Your task to perform on an android device: toggle notifications settings in the gmail app Image 0: 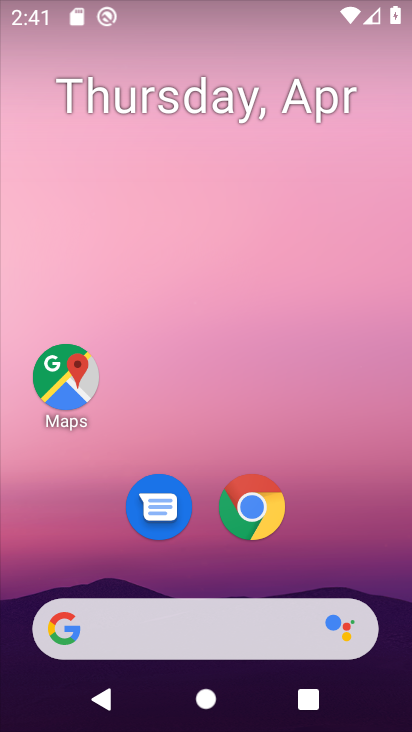
Step 0: drag from (145, 539) to (346, 41)
Your task to perform on an android device: toggle notifications settings in the gmail app Image 1: 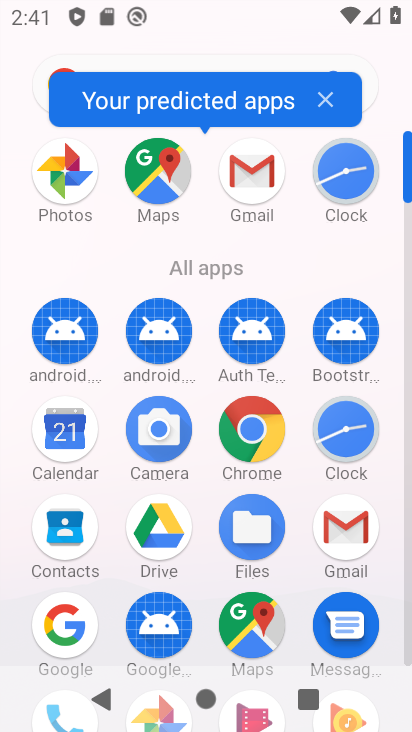
Step 1: drag from (215, 641) to (302, 241)
Your task to perform on an android device: toggle notifications settings in the gmail app Image 2: 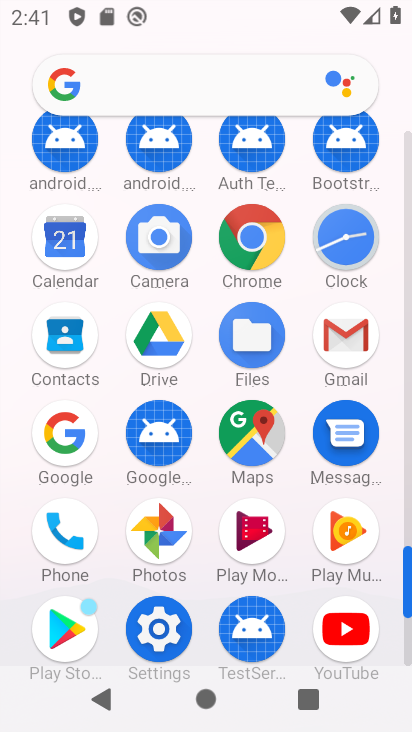
Step 2: click (342, 315)
Your task to perform on an android device: toggle notifications settings in the gmail app Image 3: 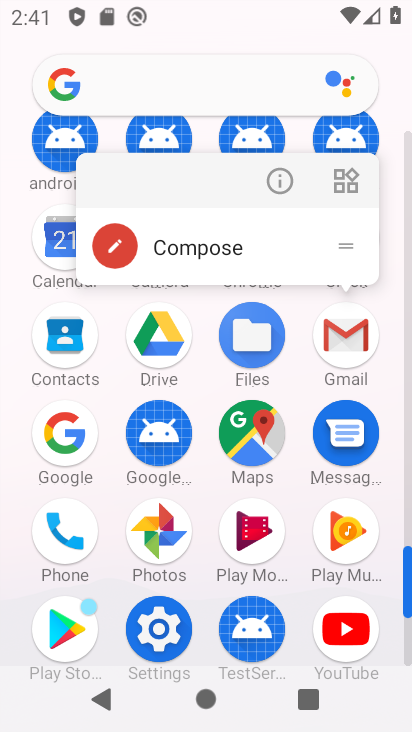
Step 3: click (339, 338)
Your task to perform on an android device: toggle notifications settings in the gmail app Image 4: 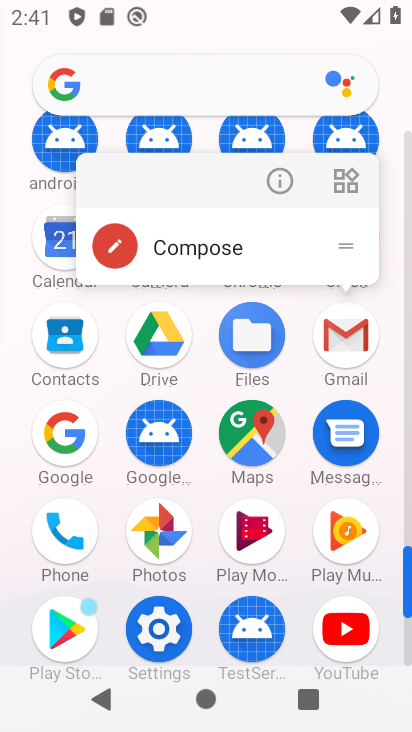
Step 4: click (343, 340)
Your task to perform on an android device: toggle notifications settings in the gmail app Image 5: 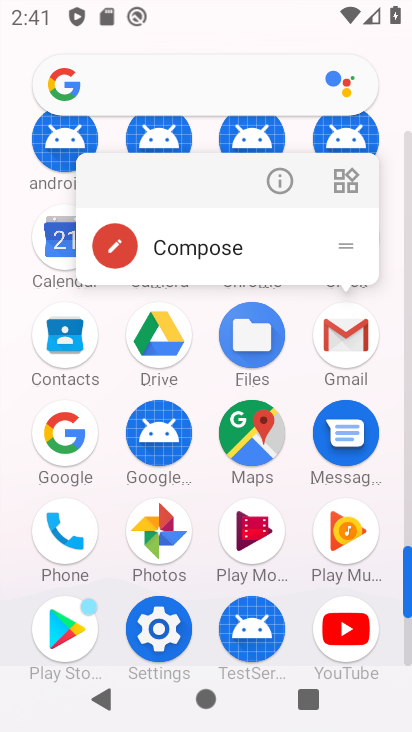
Step 5: click (348, 365)
Your task to perform on an android device: toggle notifications settings in the gmail app Image 6: 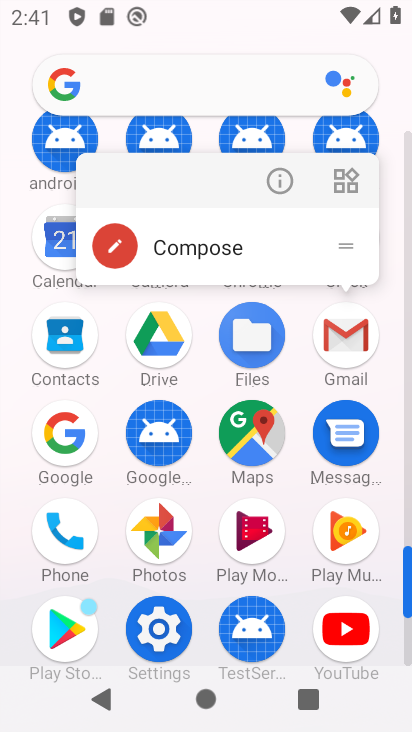
Step 6: click (348, 360)
Your task to perform on an android device: toggle notifications settings in the gmail app Image 7: 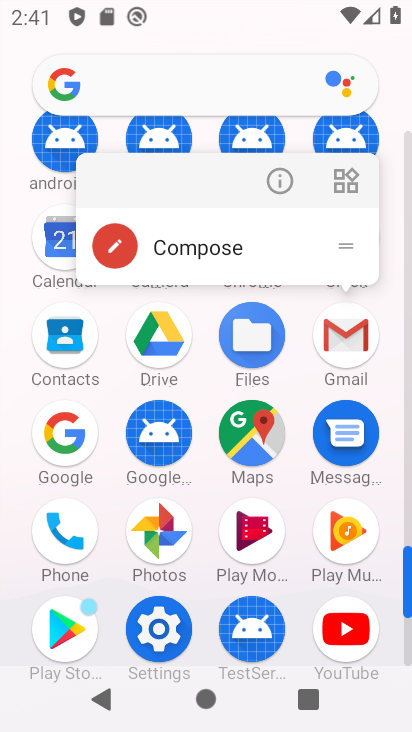
Step 7: click (340, 360)
Your task to perform on an android device: toggle notifications settings in the gmail app Image 8: 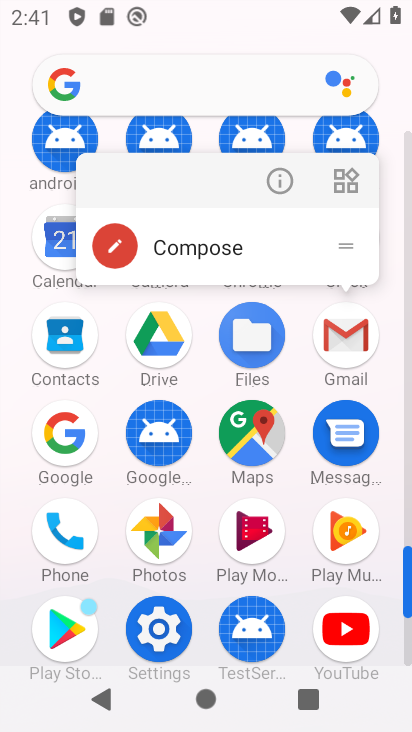
Step 8: click (362, 352)
Your task to perform on an android device: toggle notifications settings in the gmail app Image 9: 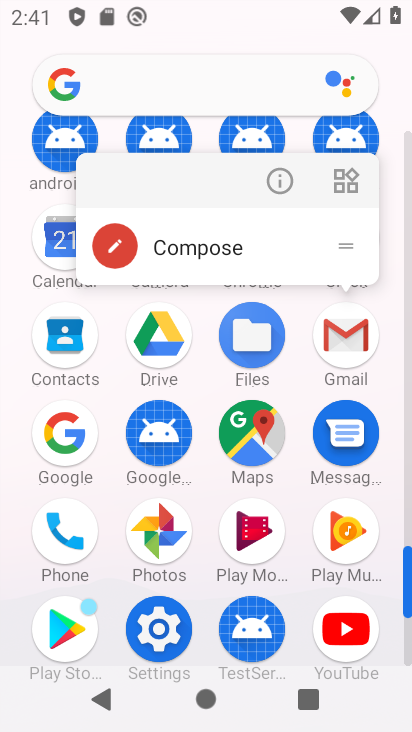
Step 9: click (336, 349)
Your task to perform on an android device: toggle notifications settings in the gmail app Image 10: 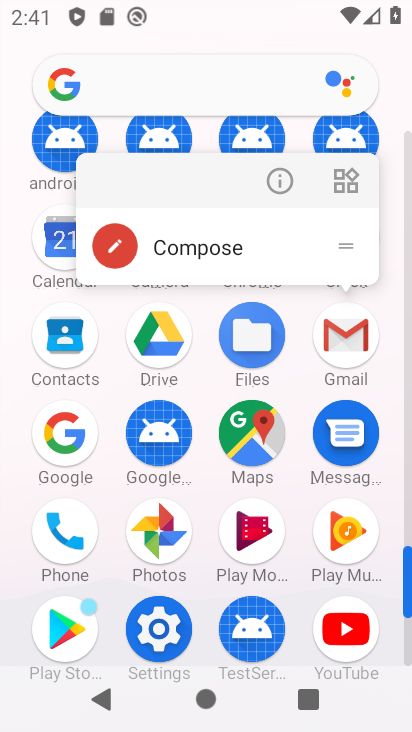
Step 10: click (341, 344)
Your task to perform on an android device: toggle notifications settings in the gmail app Image 11: 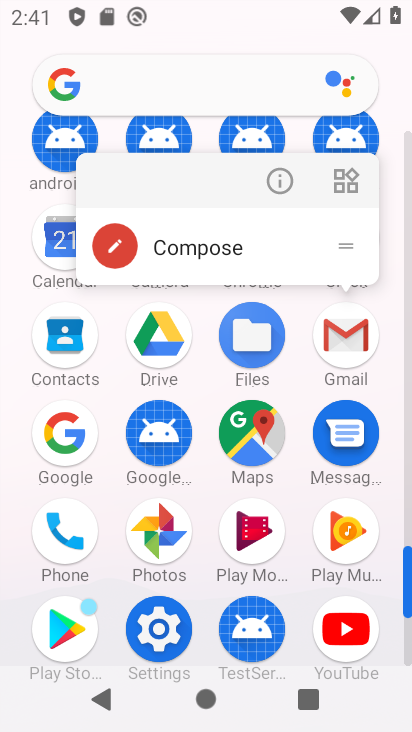
Step 11: click (344, 336)
Your task to perform on an android device: toggle notifications settings in the gmail app Image 12: 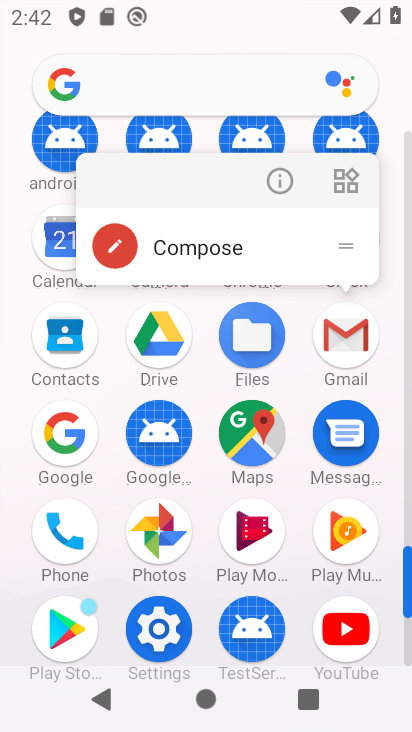
Step 12: click (346, 336)
Your task to perform on an android device: toggle notifications settings in the gmail app Image 13: 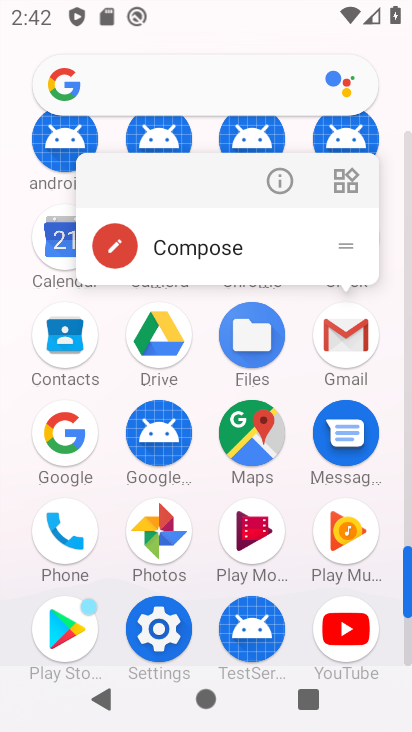
Step 13: click (357, 348)
Your task to perform on an android device: toggle notifications settings in the gmail app Image 14: 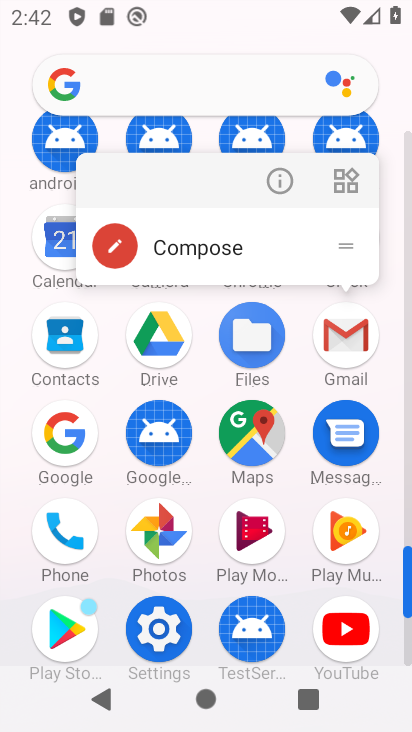
Step 14: click (357, 348)
Your task to perform on an android device: toggle notifications settings in the gmail app Image 15: 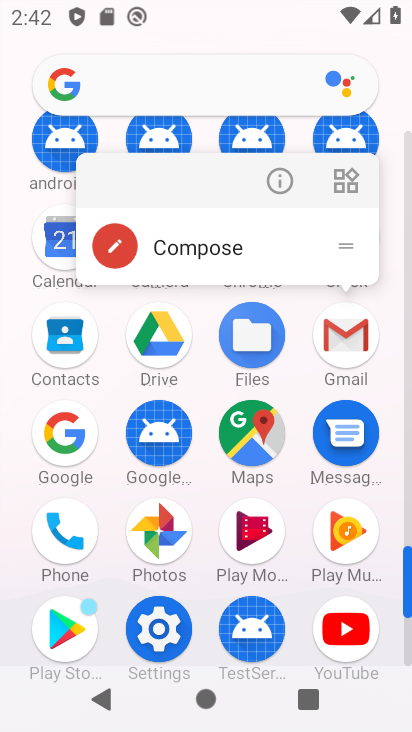
Step 15: click (357, 348)
Your task to perform on an android device: toggle notifications settings in the gmail app Image 16: 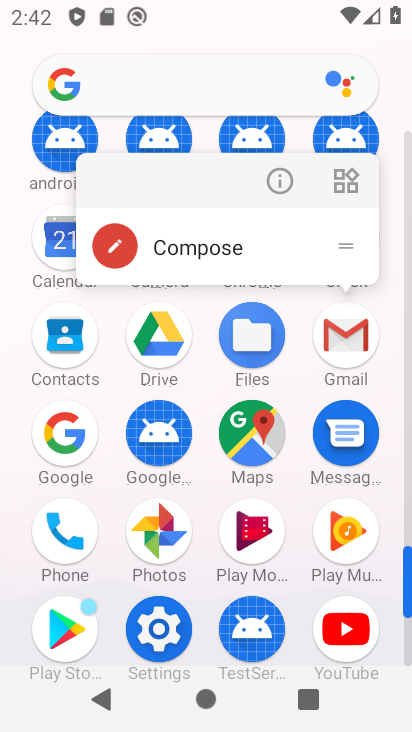
Step 16: click (353, 351)
Your task to perform on an android device: toggle notifications settings in the gmail app Image 17: 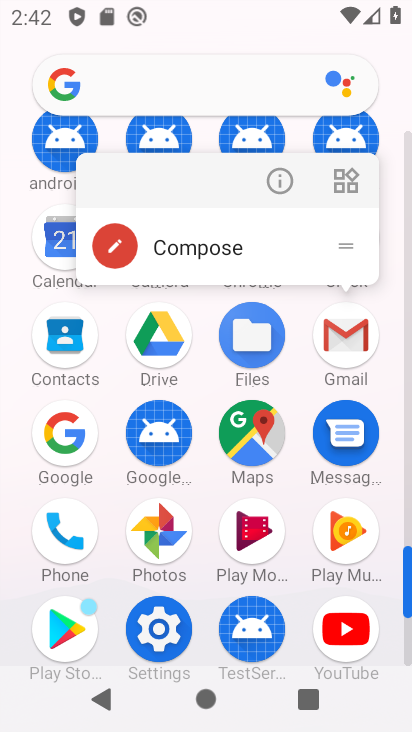
Step 17: click (352, 351)
Your task to perform on an android device: toggle notifications settings in the gmail app Image 18: 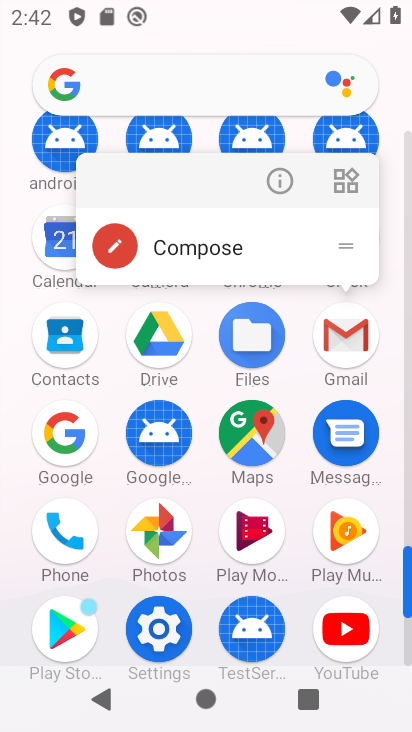
Step 18: click (353, 337)
Your task to perform on an android device: toggle notifications settings in the gmail app Image 19: 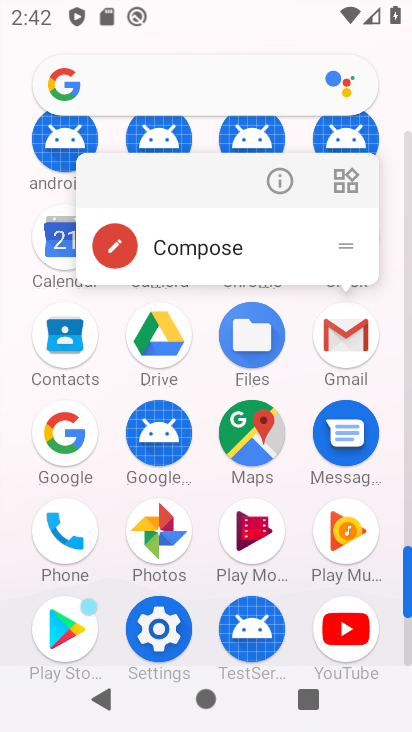
Step 19: click (357, 324)
Your task to perform on an android device: toggle notifications settings in the gmail app Image 20: 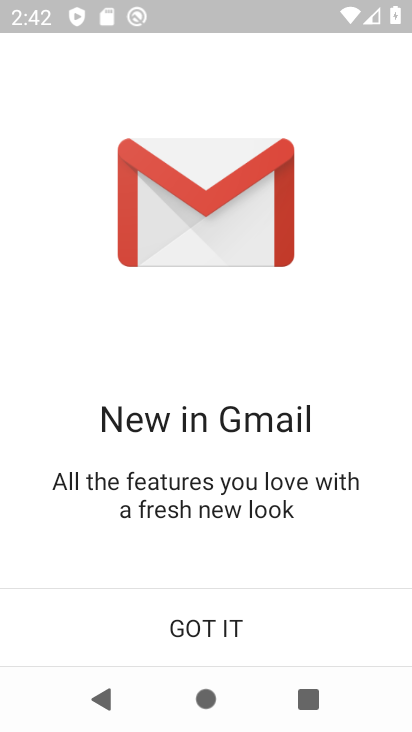
Step 20: click (197, 627)
Your task to perform on an android device: toggle notifications settings in the gmail app Image 21: 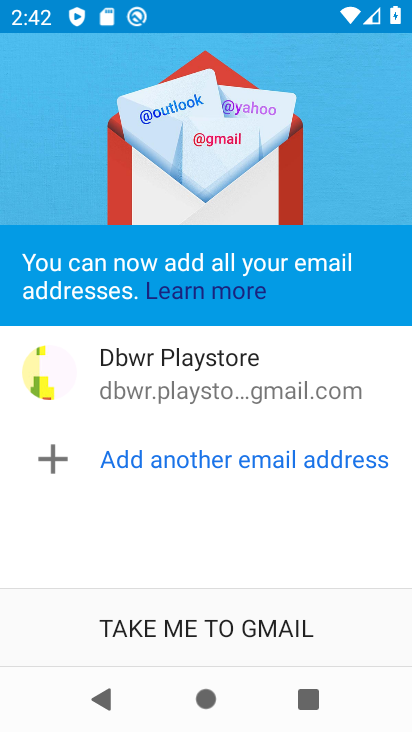
Step 21: click (182, 645)
Your task to perform on an android device: toggle notifications settings in the gmail app Image 22: 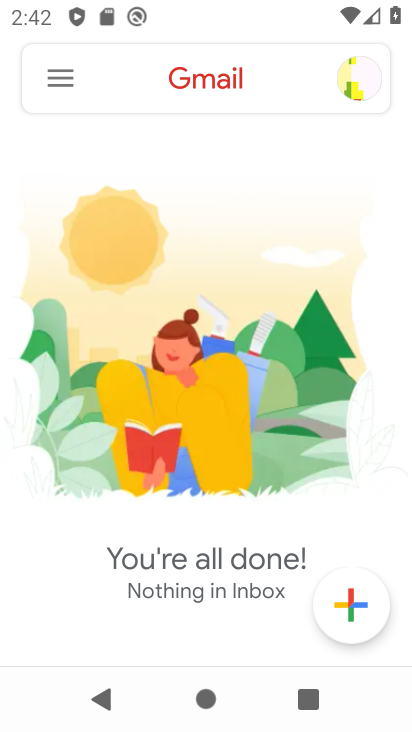
Step 22: click (76, 89)
Your task to perform on an android device: toggle notifications settings in the gmail app Image 23: 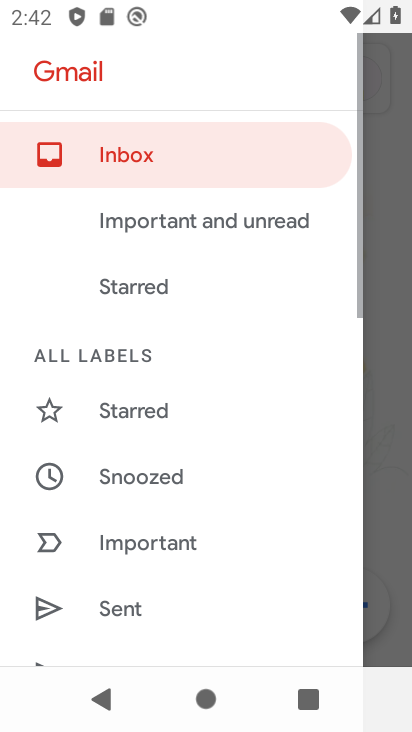
Step 23: drag from (118, 584) to (258, 166)
Your task to perform on an android device: toggle notifications settings in the gmail app Image 24: 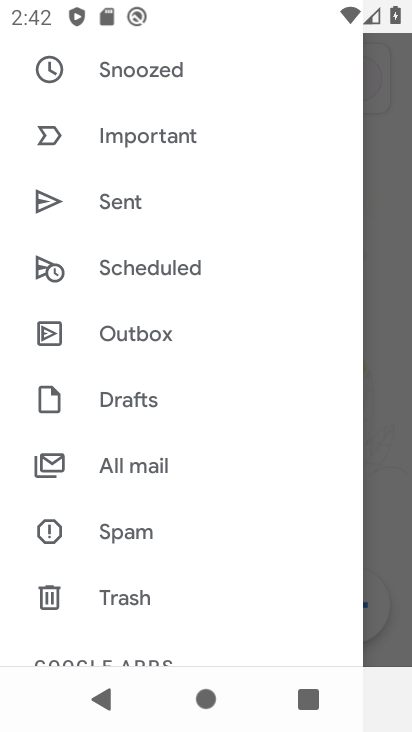
Step 24: drag from (150, 572) to (243, 177)
Your task to perform on an android device: toggle notifications settings in the gmail app Image 25: 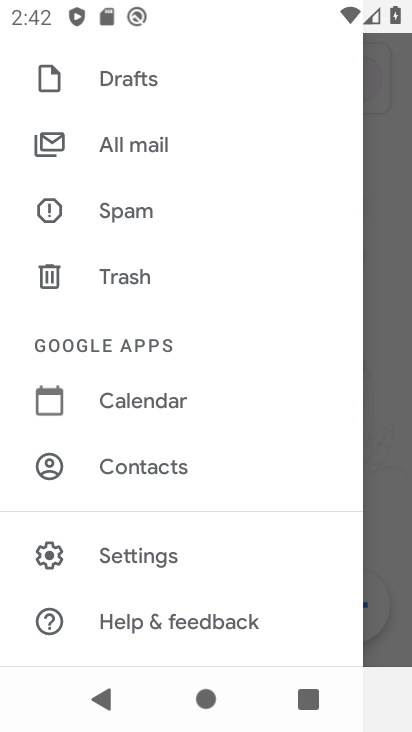
Step 25: click (145, 563)
Your task to perform on an android device: toggle notifications settings in the gmail app Image 26: 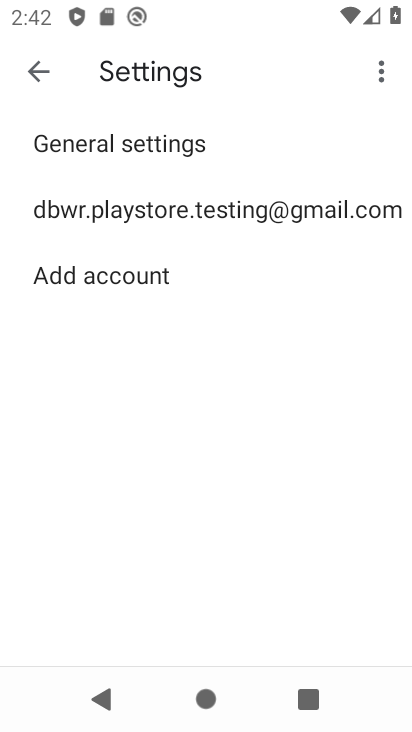
Step 26: click (270, 212)
Your task to perform on an android device: toggle notifications settings in the gmail app Image 27: 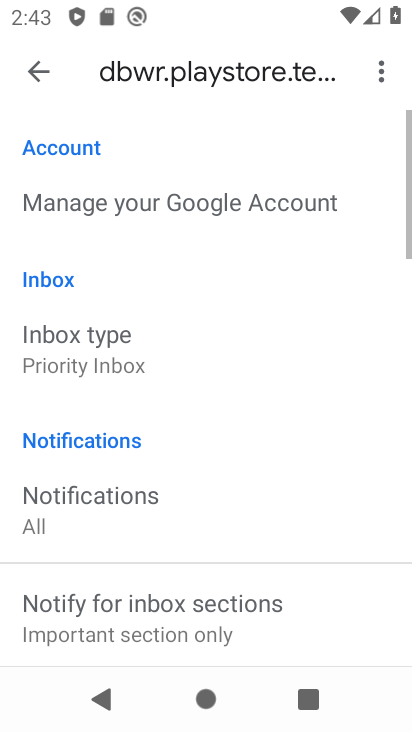
Step 27: drag from (188, 558) to (281, 163)
Your task to perform on an android device: toggle notifications settings in the gmail app Image 28: 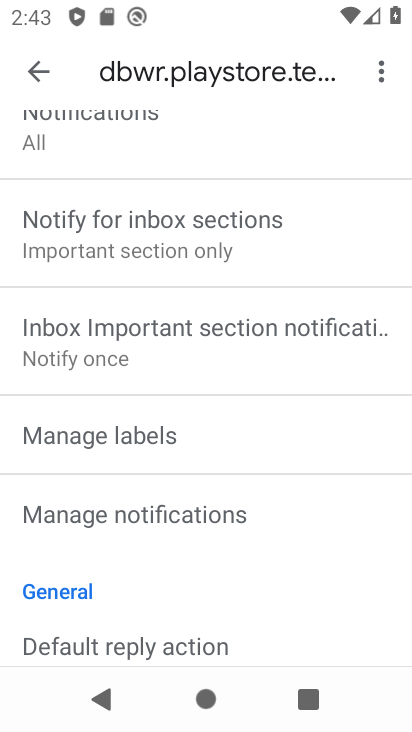
Step 28: drag from (161, 506) to (305, 244)
Your task to perform on an android device: toggle notifications settings in the gmail app Image 29: 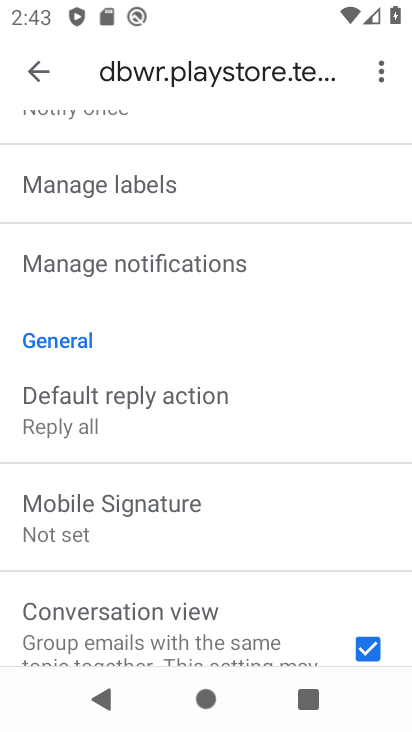
Step 29: click (248, 264)
Your task to perform on an android device: toggle notifications settings in the gmail app Image 30: 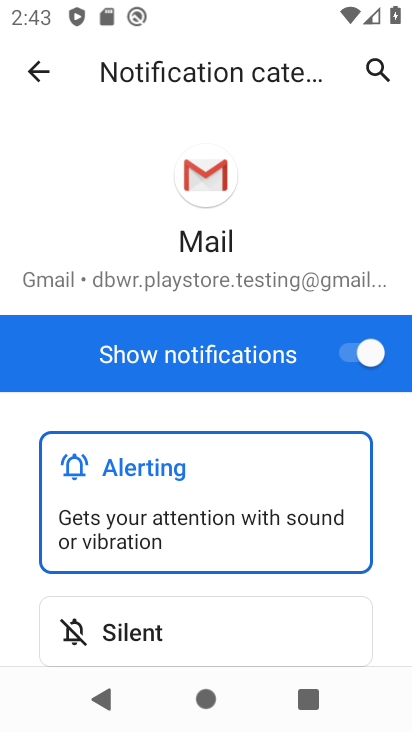
Step 30: click (348, 355)
Your task to perform on an android device: toggle notifications settings in the gmail app Image 31: 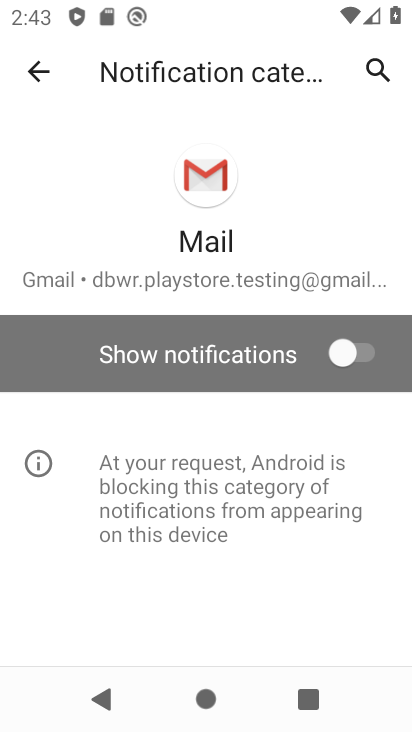
Step 31: task complete